Your task to perform on an android device: open chrome privacy settings Image 0: 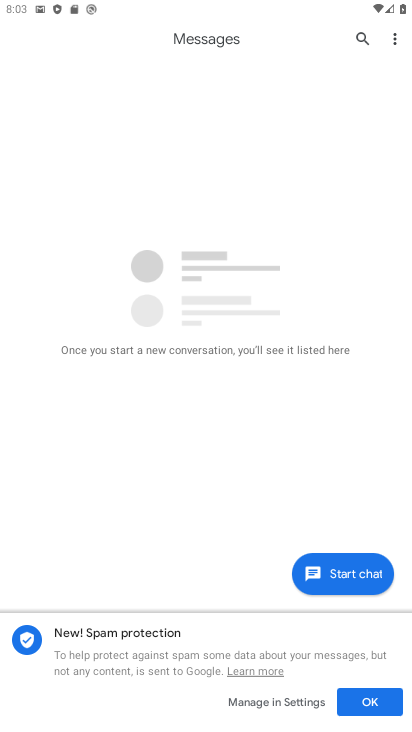
Step 0: press home button
Your task to perform on an android device: open chrome privacy settings Image 1: 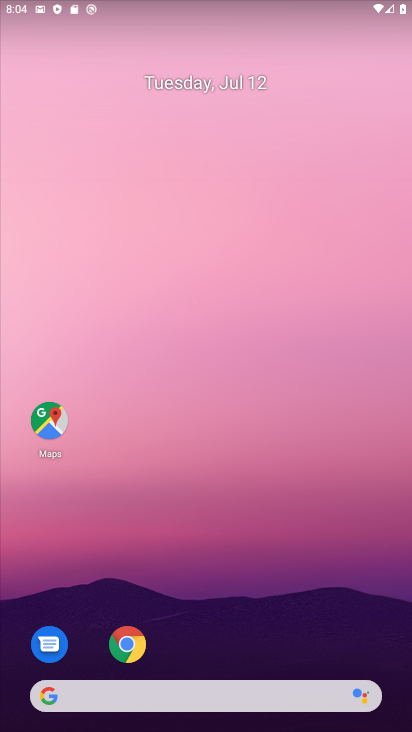
Step 1: click (128, 642)
Your task to perform on an android device: open chrome privacy settings Image 2: 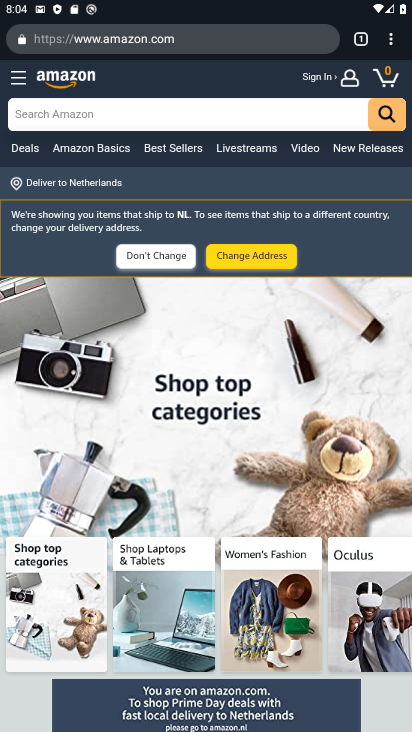
Step 2: click (392, 41)
Your task to perform on an android device: open chrome privacy settings Image 3: 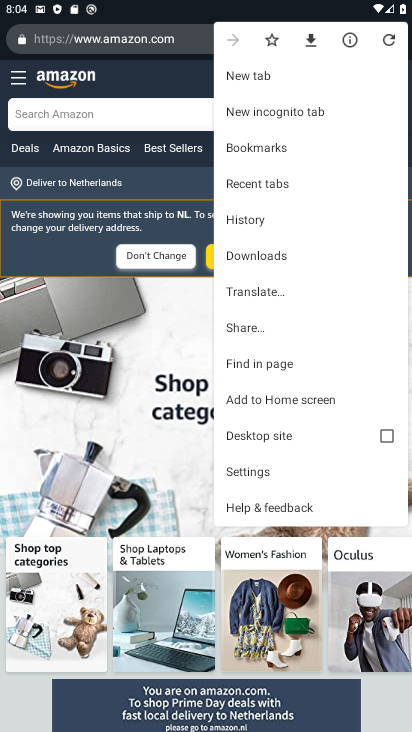
Step 3: click (252, 471)
Your task to perform on an android device: open chrome privacy settings Image 4: 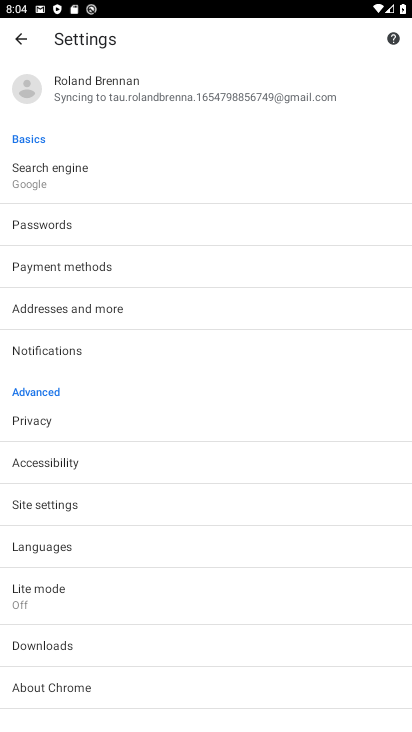
Step 4: click (44, 422)
Your task to perform on an android device: open chrome privacy settings Image 5: 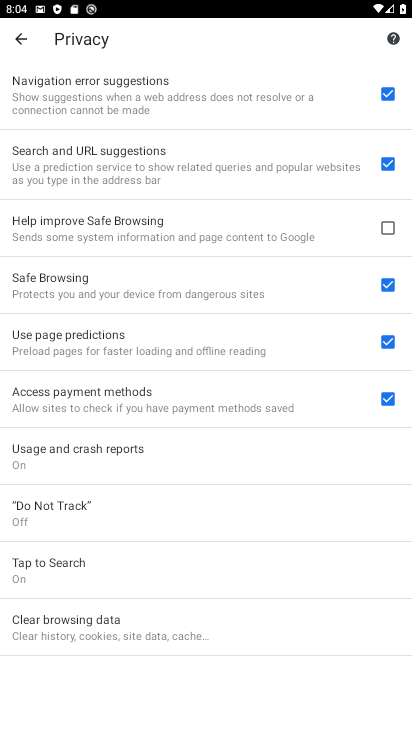
Step 5: task complete